Your task to perform on an android device: check the backup settings in the google photos Image 0: 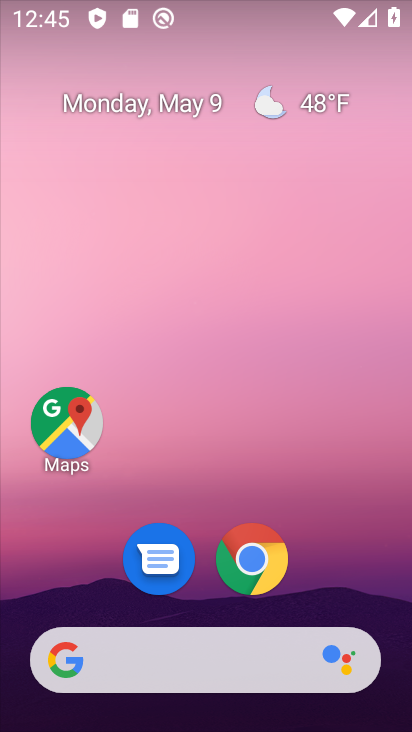
Step 0: drag from (186, 601) to (234, 284)
Your task to perform on an android device: check the backup settings in the google photos Image 1: 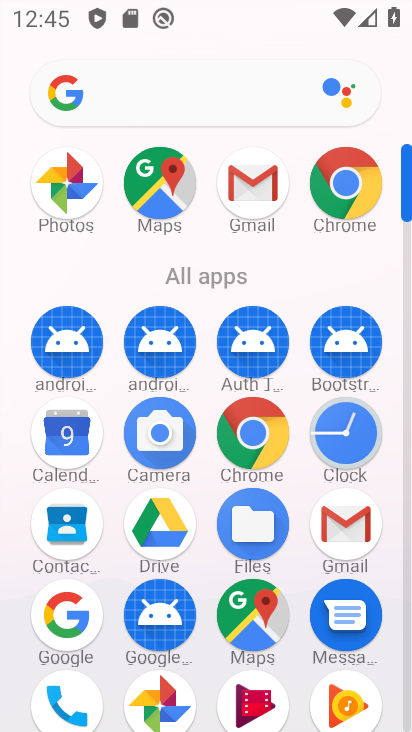
Step 1: click (160, 693)
Your task to perform on an android device: check the backup settings in the google photos Image 2: 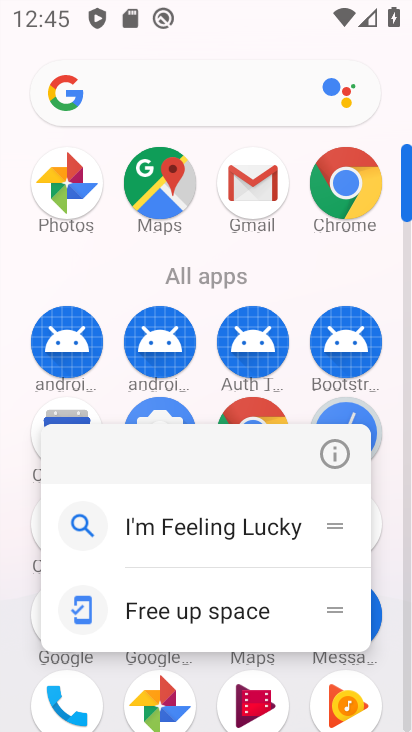
Step 2: click (330, 453)
Your task to perform on an android device: check the backup settings in the google photos Image 3: 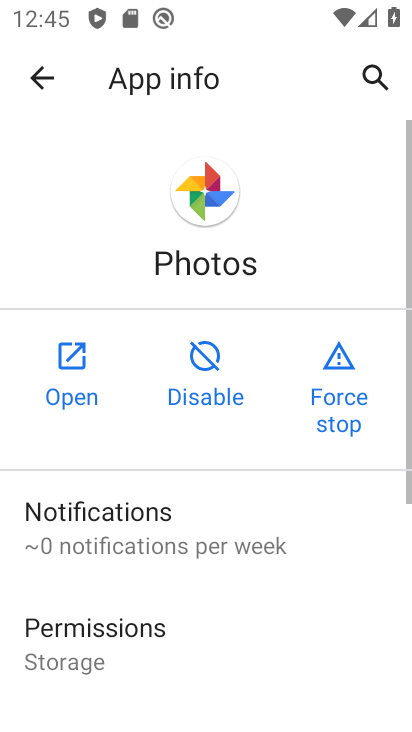
Step 3: click (68, 376)
Your task to perform on an android device: check the backup settings in the google photos Image 4: 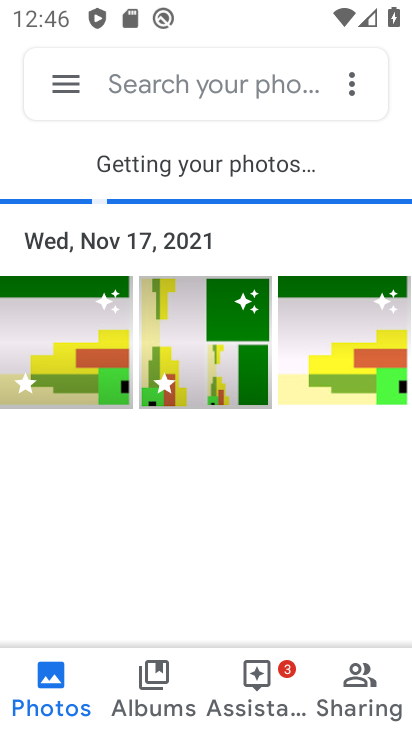
Step 4: click (67, 85)
Your task to perform on an android device: check the backup settings in the google photos Image 5: 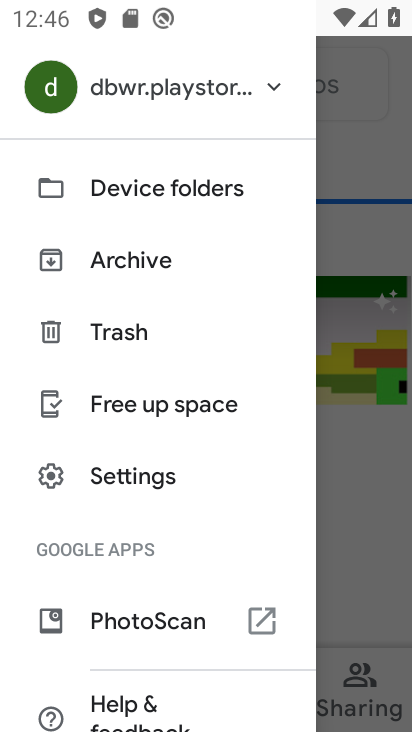
Step 5: click (149, 486)
Your task to perform on an android device: check the backup settings in the google photos Image 6: 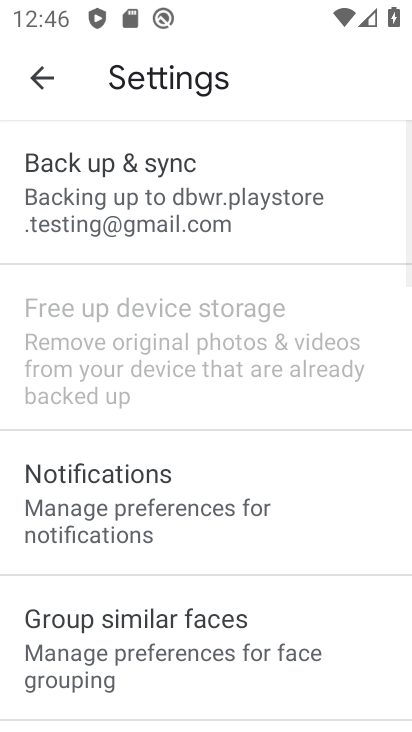
Step 6: click (184, 225)
Your task to perform on an android device: check the backup settings in the google photos Image 7: 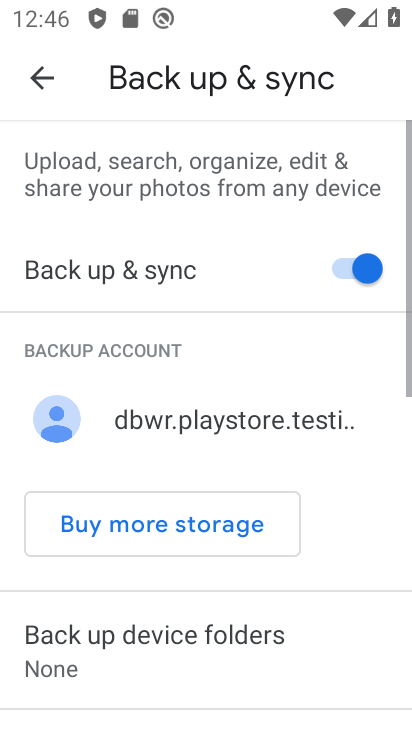
Step 7: task complete